Your task to perform on an android device: Open Chrome and go to settings Image 0: 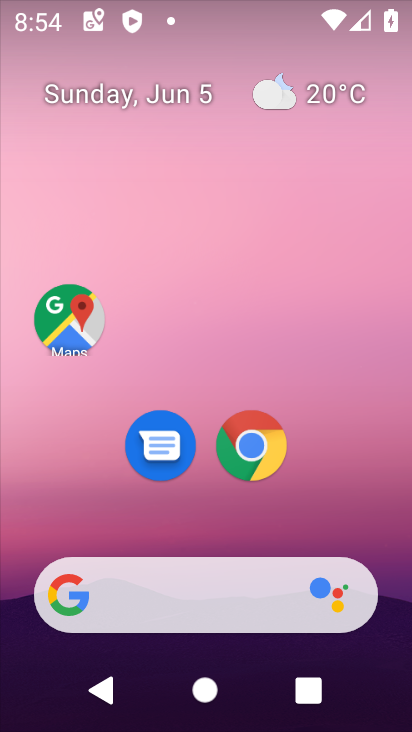
Step 0: drag from (409, 253) to (396, 4)
Your task to perform on an android device: Open Chrome and go to settings Image 1: 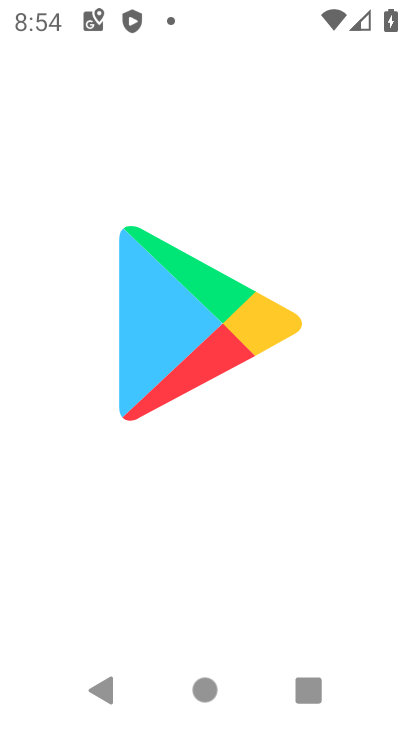
Step 1: press home button
Your task to perform on an android device: Open Chrome and go to settings Image 2: 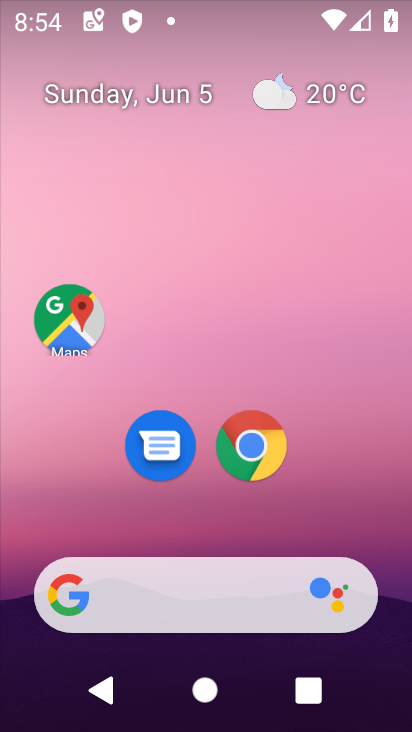
Step 2: drag from (302, 581) to (365, 10)
Your task to perform on an android device: Open Chrome and go to settings Image 3: 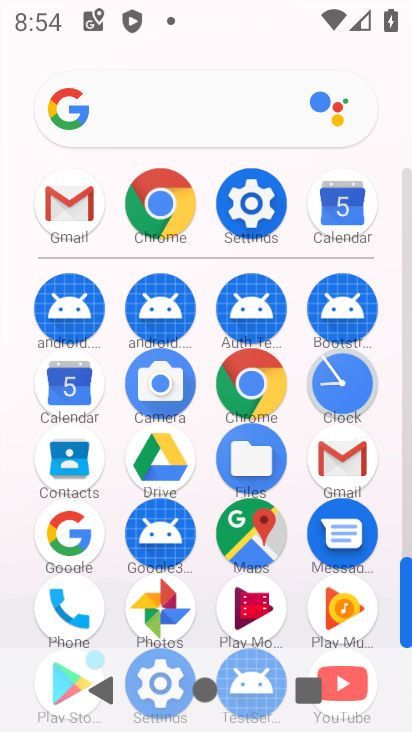
Step 3: click (256, 390)
Your task to perform on an android device: Open Chrome and go to settings Image 4: 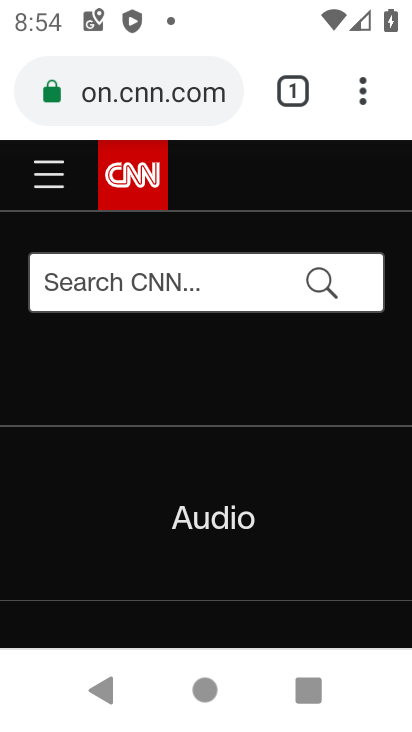
Step 4: drag from (367, 85) to (165, 519)
Your task to perform on an android device: Open Chrome and go to settings Image 5: 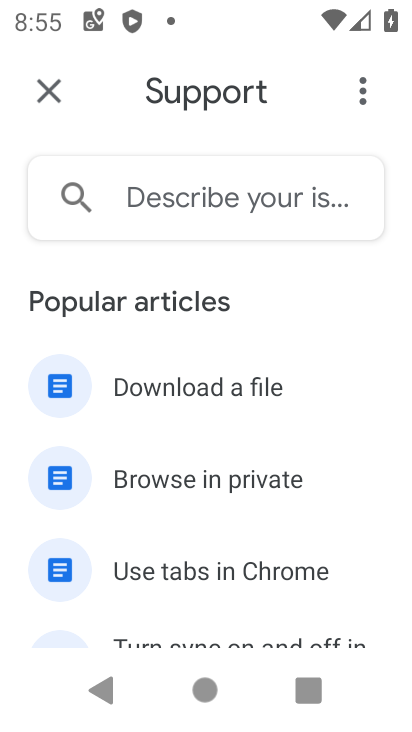
Step 5: press back button
Your task to perform on an android device: Open Chrome and go to settings Image 6: 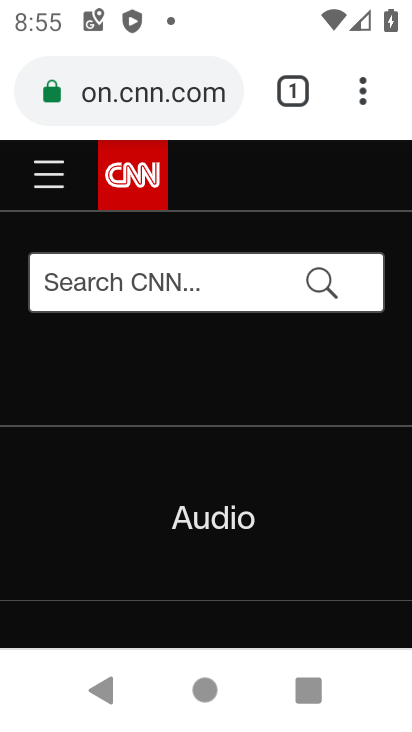
Step 6: click (360, 86)
Your task to perform on an android device: Open Chrome and go to settings Image 7: 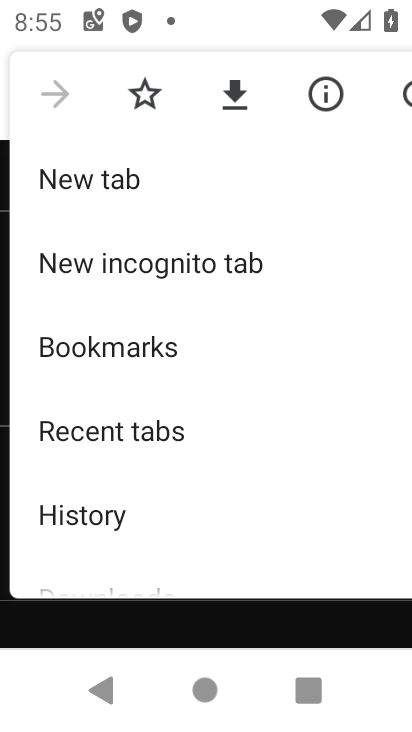
Step 7: drag from (247, 526) to (315, 10)
Your task to perform on an android device: Open Chrome and go to settings Image 8: 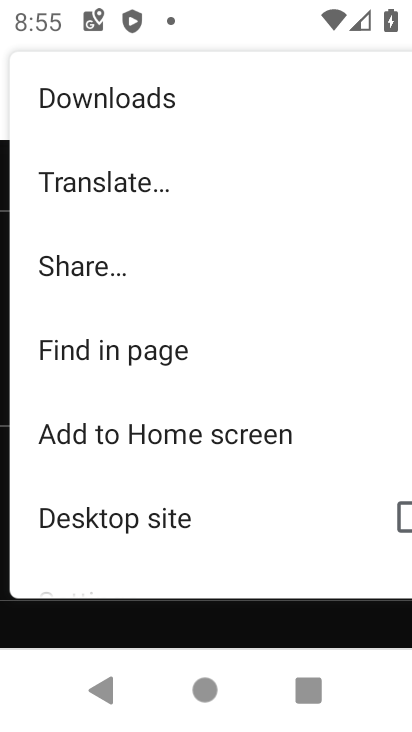
Step 8: drag from (210, 558) to (246, 371)
Your task to perform on an android device: Open Chrome and go to settings Image 9: 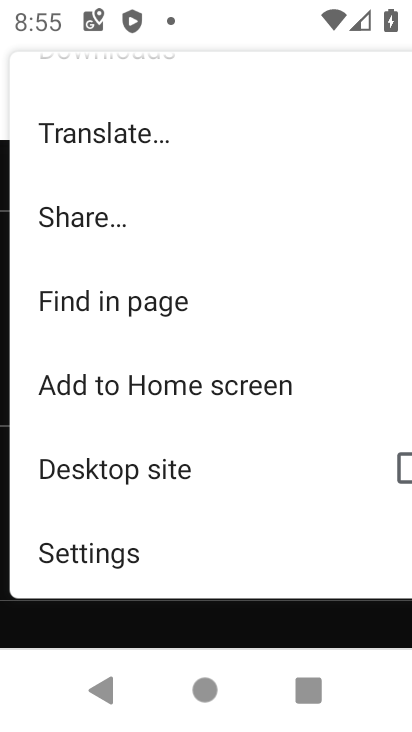
Step 9: click (201, 467)
Your task to perform on an android device: Open Chrome and go to settings Image 10: 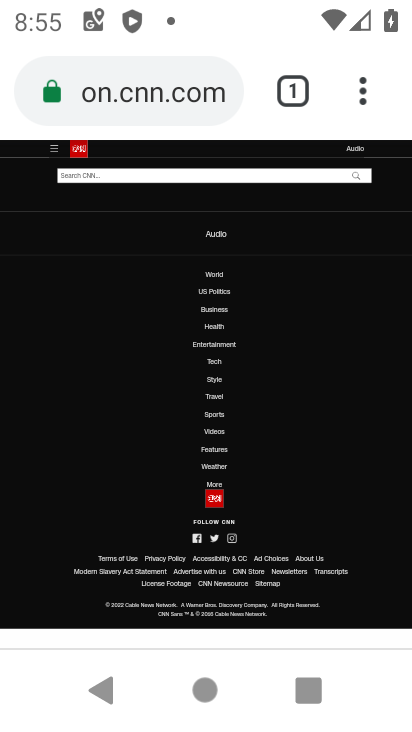
Step 10: task complete